Your task to perform on an android device: toggle sleep mode Image 0: 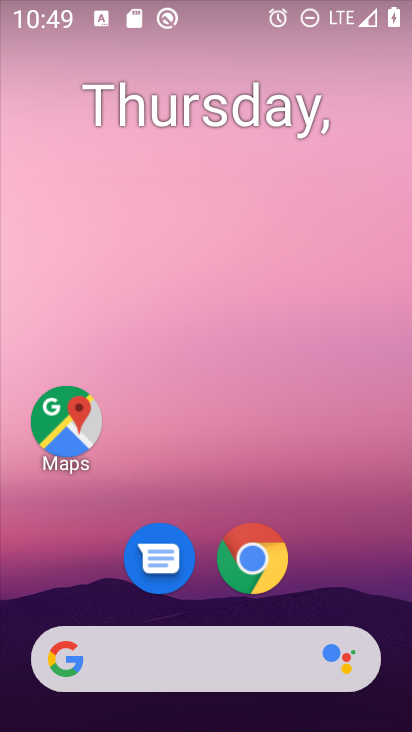
Step 0: drag from (389, 626) to (343, 158)
Your task to perform on an android device: toggle sleep mode Image 1: 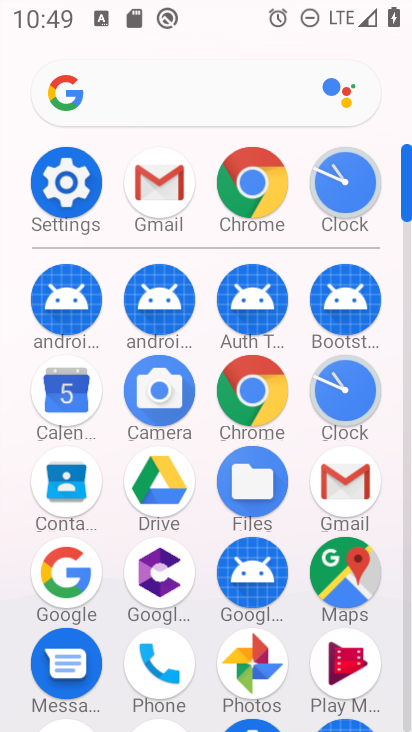
Step 1: click (406, 701)
Your task to perform on an android device: toggle sleep mode Image 2: 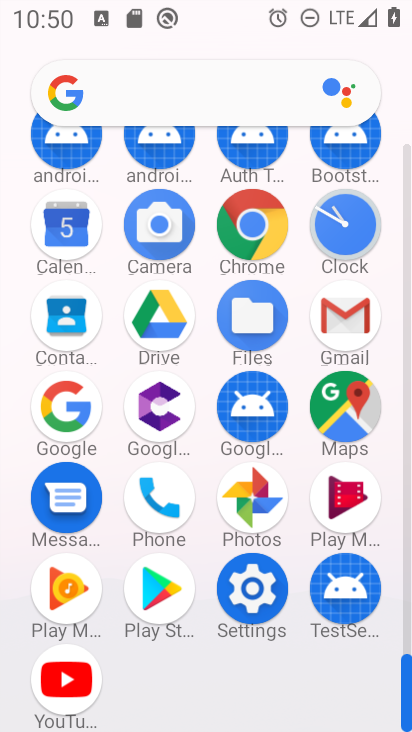
Step 2: click (253, 587)
Your task to perform on an android device: toggle sleep mode Image 3: 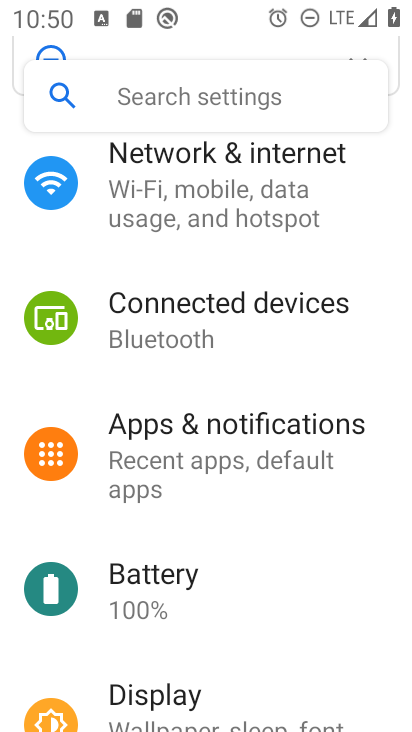
Step 3: drag from (271, 652) to (329, 335)
Your task to perform on an android device: toggle sleep mode Image 4: 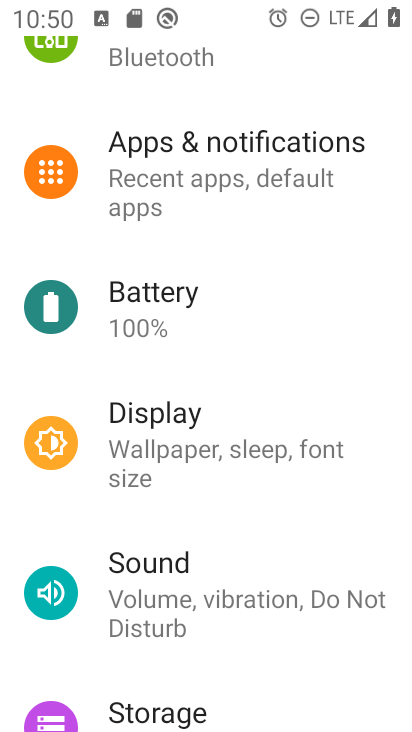
Step 4: click (158, 454)
Your task to perform on an android device: toggle sleep mode Image 5: 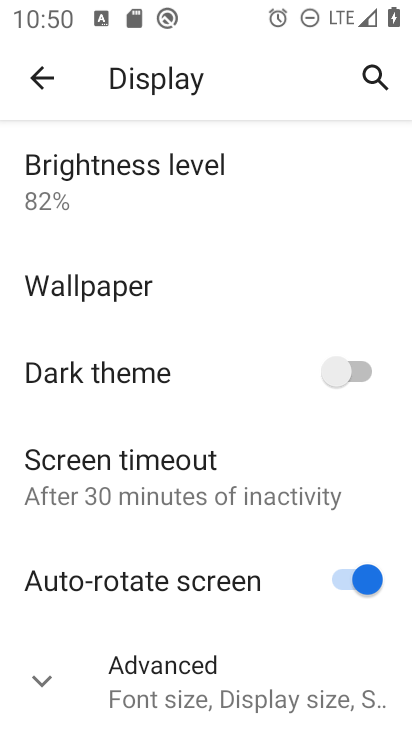
Step 5: click (44, 685)
Your task to perform on an android device: toggle sleep mode Image 6: 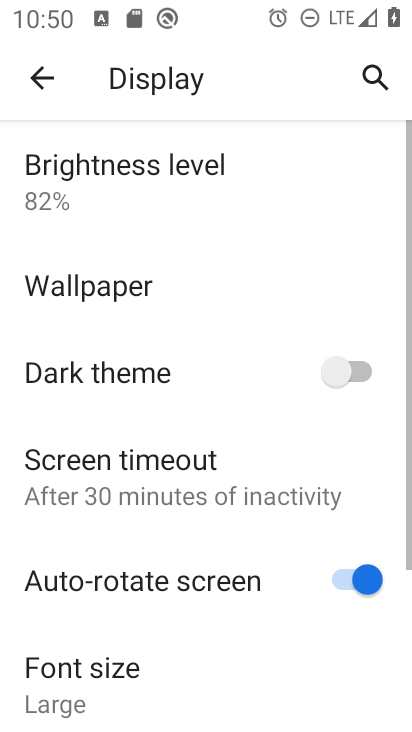
Step 6: task complete